Your task to perform on an android device: Is it going to rain this weekend? Image 0: 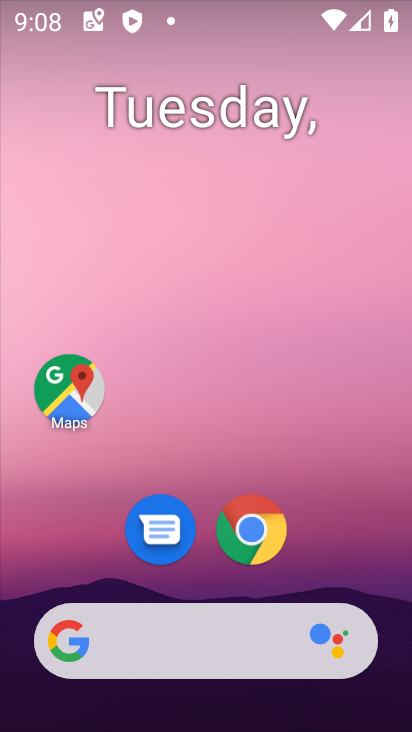
Step 0: drag from (319, 601) to (301, 1)
Your task to perform on an android device: Is it going to rain this weekend? Image 1: 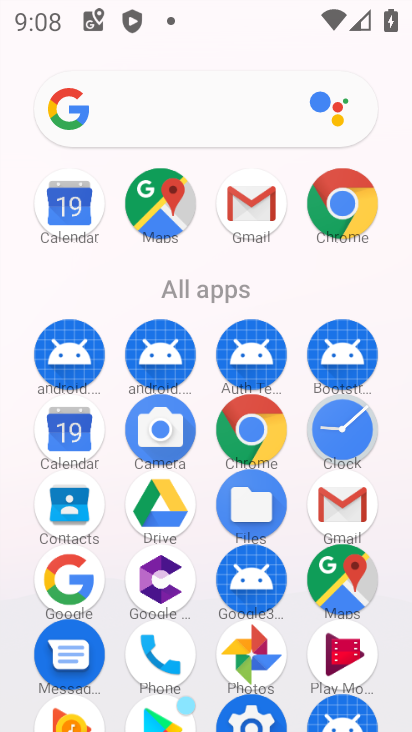
Step 1: click (253, 437)
Your task to perform on an android device: Is it going to rain this weekend? Image 2: 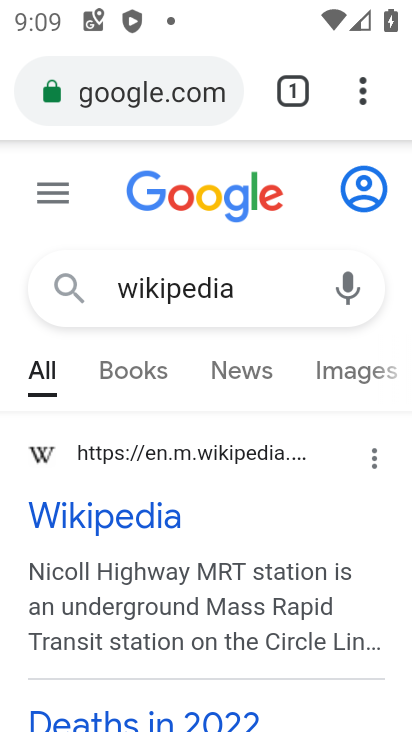
Step 2: click (211, 95)
Your task to perform on an android device: Is it going to rain this weekend? Image 3: 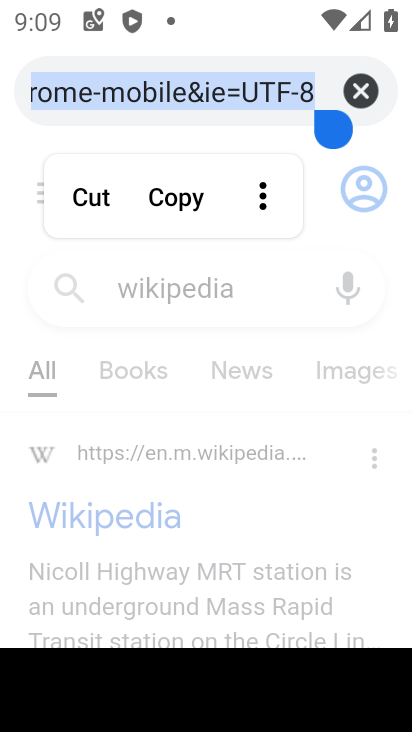
Step 3: click (368, 88)
Your task to perform on an android device: Is it going to rain this weekend? Image 4: 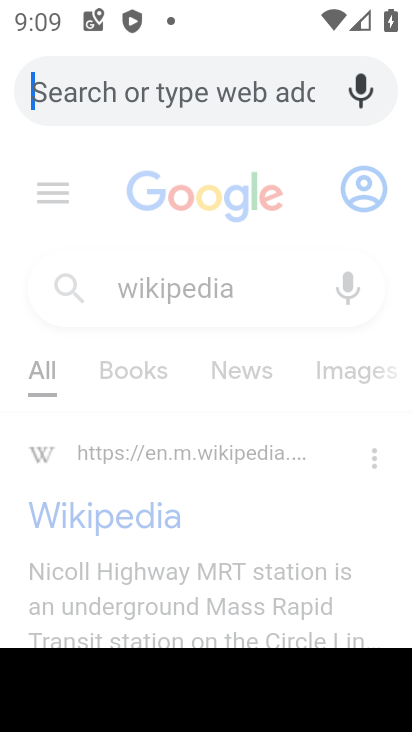
Step 4: type "raiin this weekend"
Your task to perform on an android device: Is it going to rain this weekend? Image 5: 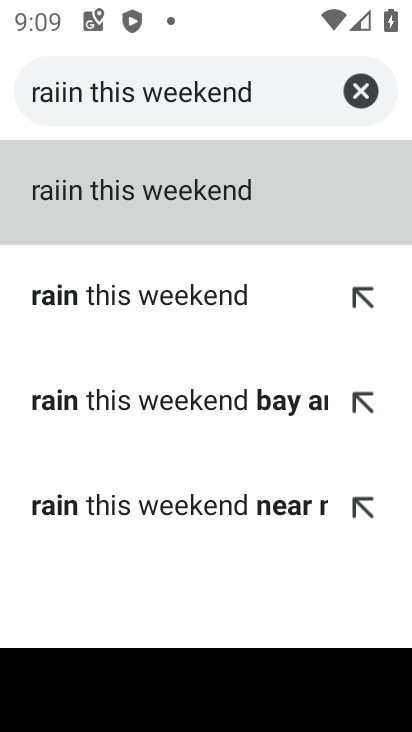
Step 5: click (216, 180)
Your task to perform on an android device: Is it going to rain this weekend? Image 6: 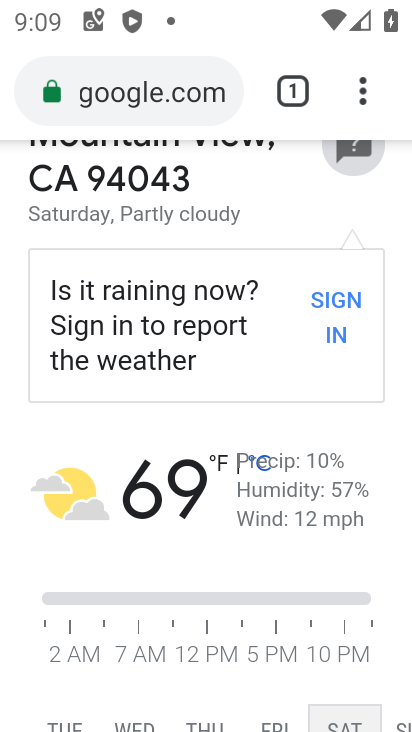
Step 6: task complete